Your task to perform on an android device: Go to Google maps Image 0: 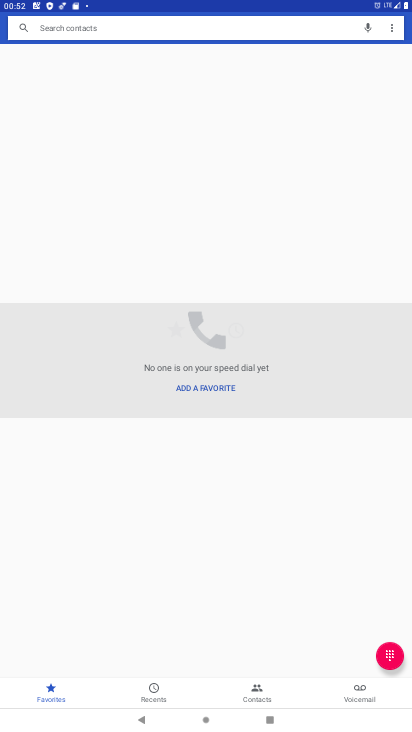
Step 0: press home button
Your task to perform on an android device: Go to Google maps Image 1: 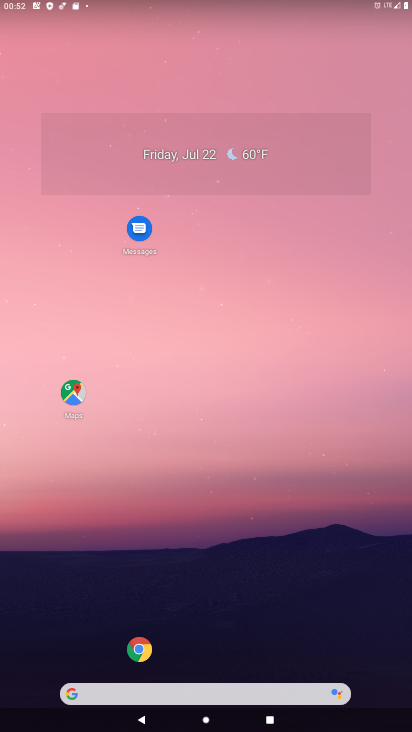
Step 1: click (79, 379)
Your task to perform on an android device: Go to Google maps Image 2: 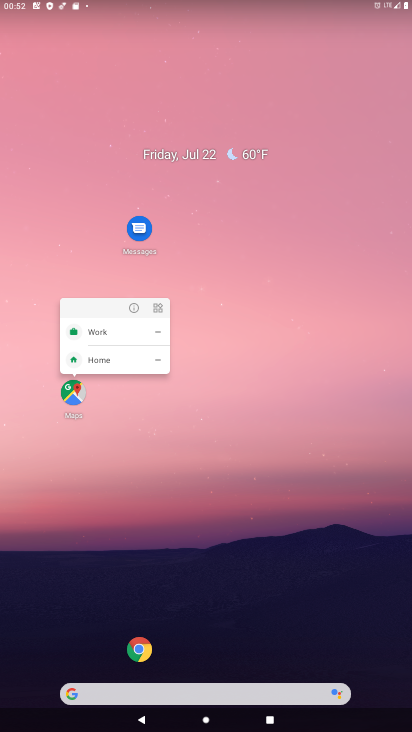
Step 2: click (79, 393)
Your task to perform on an android device: Go to Google maps Image 3: 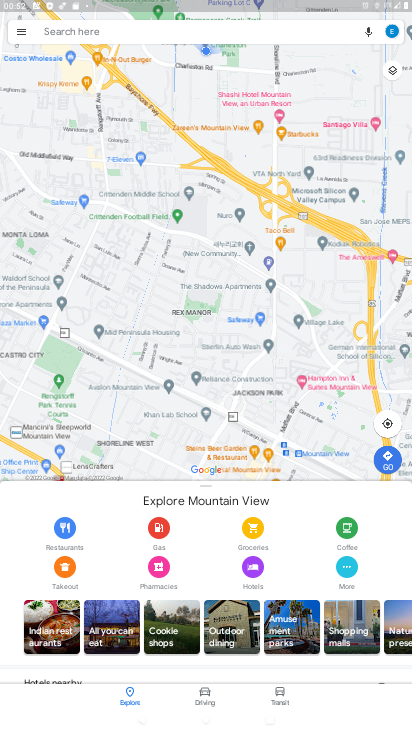
Step 3: task complete